Your task to perform on an android device: turn on airplane mode Image 0: 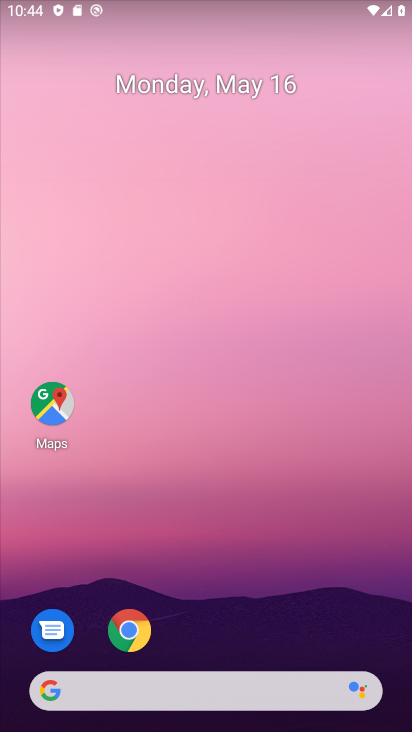
Step 0: drag from (220, 652) to (248, 176)
Your task to perform on an android device: turn on airplane mode Image 1: 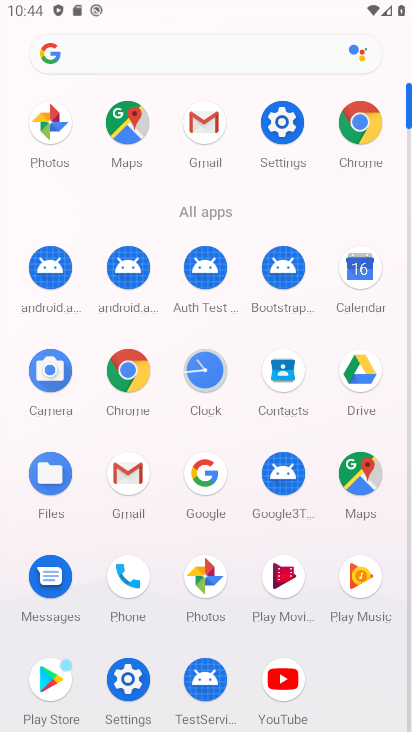
Step 1: click (283, 135)
Your task to perform on an android device: turn on airplane mode Image 2: 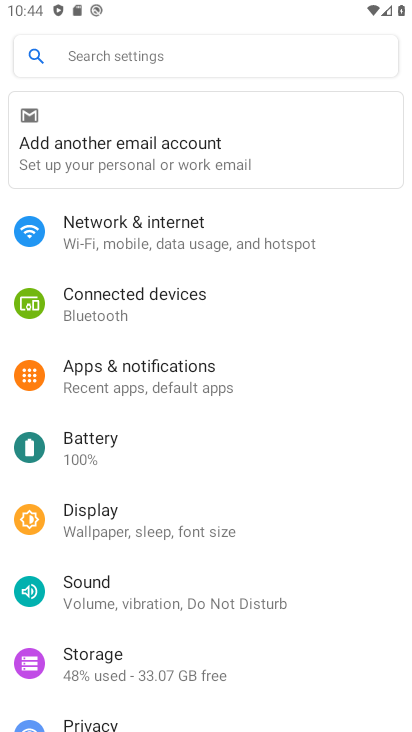
Step 2: click (244, 254)
Your task to perform on an android device: turn on airplane mode Image 3: 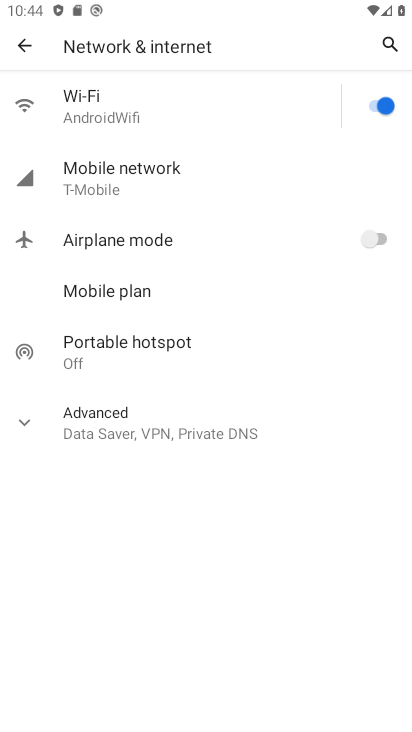
Step 3: click (383, 236)
Your task to perform on an android device: turn on airplane mode Image 4: 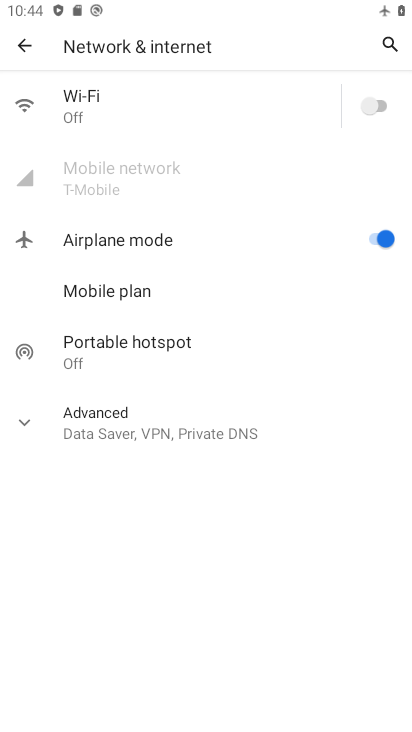
Step 4: task complete